Your task to perform on an android device: remove spam from my inbox in the gmail app Image 0: 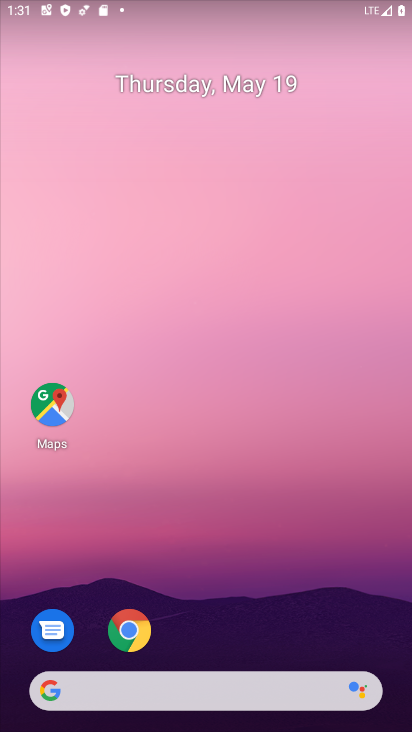
Step 0: drag from (212, 671) to (152, 49)
Your task to perform on an android device: remove spam from my inbox in the gmail app Image 1: 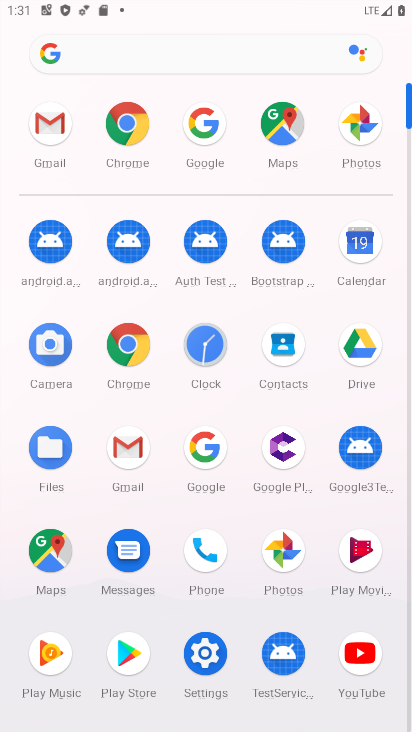
Step 1: click (129, 460)
Your task to perform on an android device: remove spam from my inbox in the gmail app Image 2: 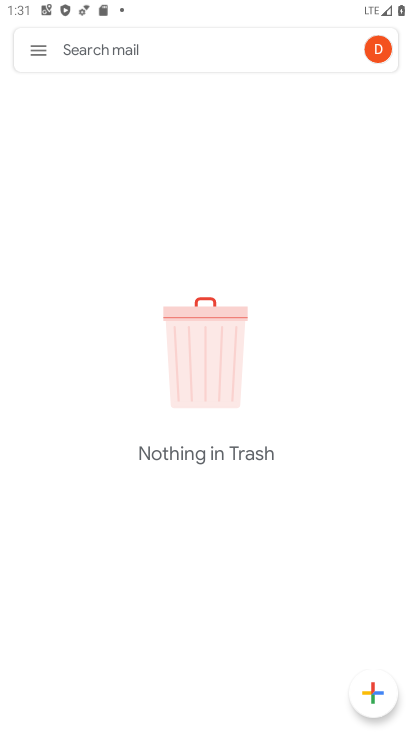
Step 2: click (37, 49)
Your task to perform on an android device: remove spam from my inbox in the gmail app Image 3: 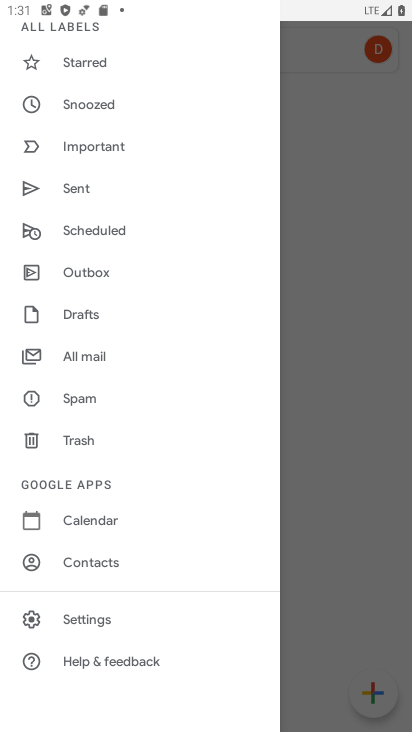
Step 3: click (79, 403)
Your task to perform on an android device: remove spam from my inbox in the gmail app Image 4: 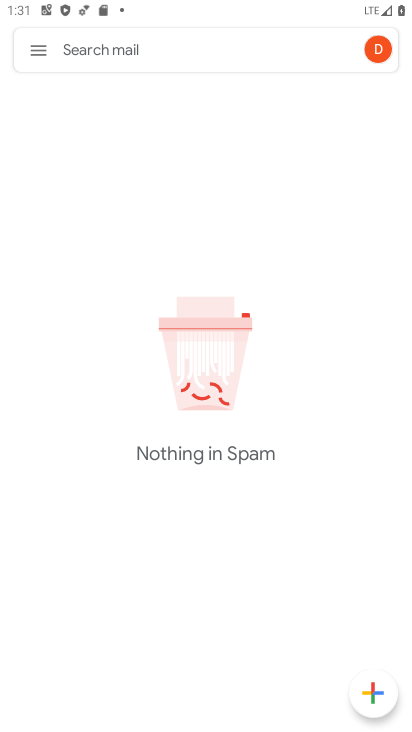
Step 4: task complete